Your task to perform on an android device: turn off priority inbox in the gmail app Image 0: 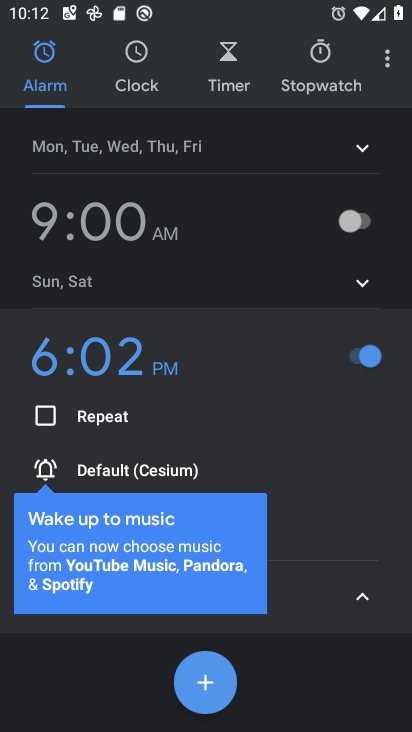
Step 0: press home button
Your task to perform on an android device: turn off priority inbox in the gmail app Image 1: 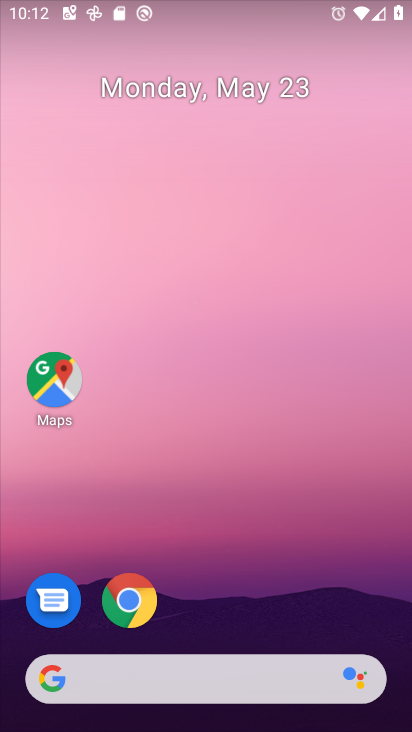
Step 1: drag from (200, 716) to (203, 161)
Your task to perform on an android device: turn off priority inbox in the gmail app Image 2: 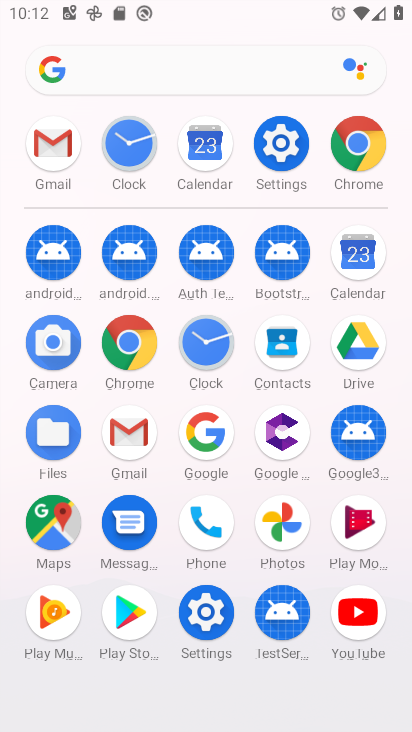
Step 2: click (127, 434)
Your task to perform on an android device: turn off priority inbox in the gmail app Image 3: 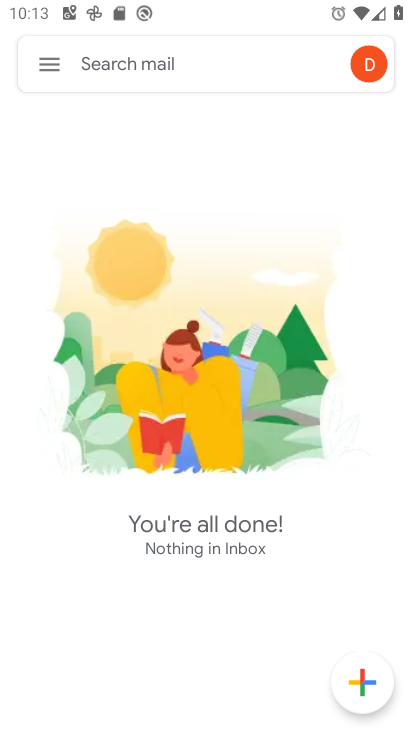
Step 3: click (46, 68)
Your task to perform on an android device: turn off priority inbox in the gmail app Image 4: 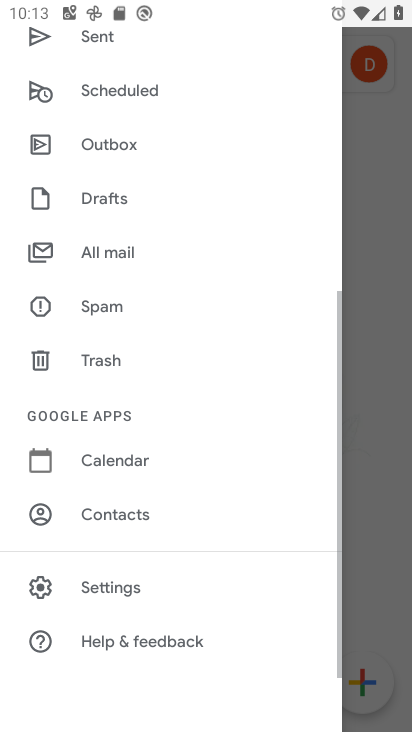
Step 4: click (94, 586)
Your task to perform on an android device: turn off priority inbox in the gmail app Image 5: 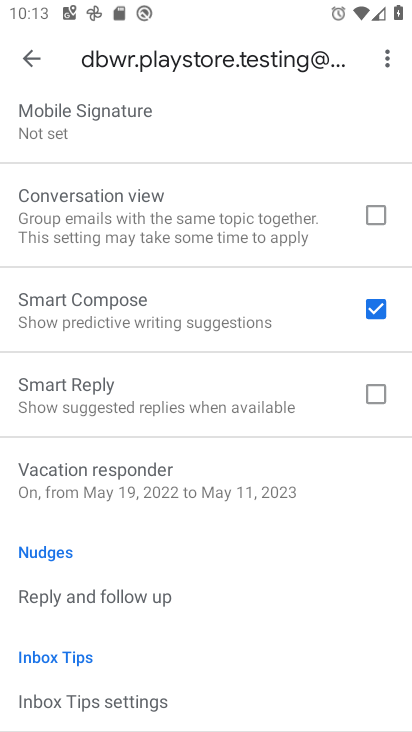
Step 5: drag from (190, 117) to (246, 561)
Your task to perform on an android device: turn off priority inbox in the gmail app Image 6: 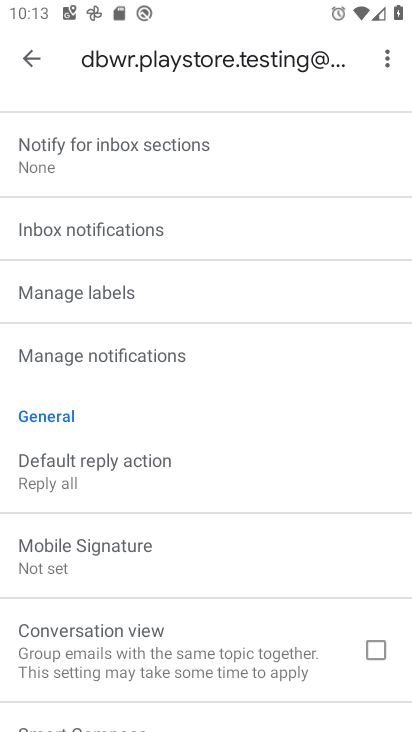
Step 6: drag from (195, 171) to (218, 530)
Your task to perform on an android device: turn off priority inbox in the gmail app Image 7: 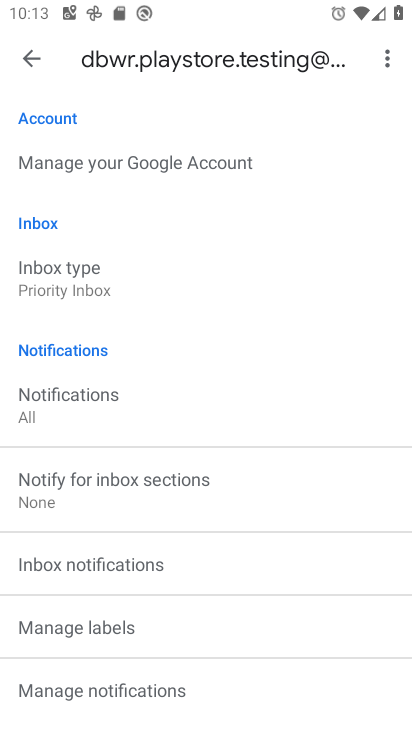
Step 7: click (70, 281)
Your task to perform on an android device: turn off priority inbox in the gmail app Image 8: 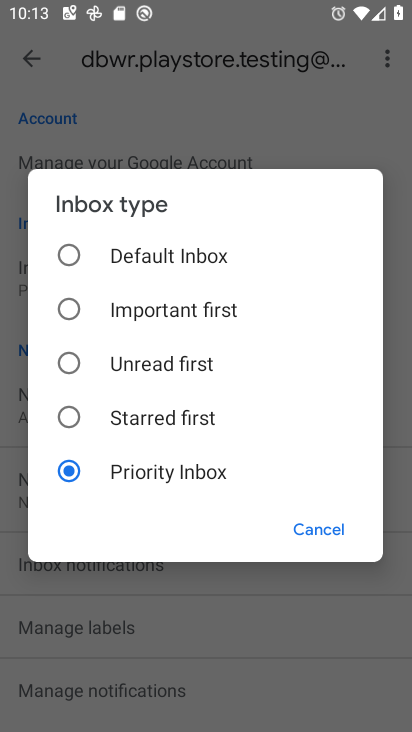
Step 8: click (64, 253)
Your task to perform on an android device: turn off priority inbox in the gmail app Image 9: 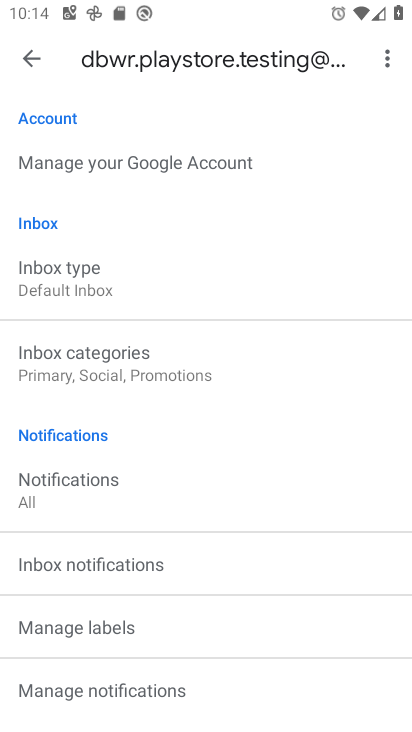
Step 9: task complete